Your task to perform on an android device: add a label to a message in the gmail app Image 0: 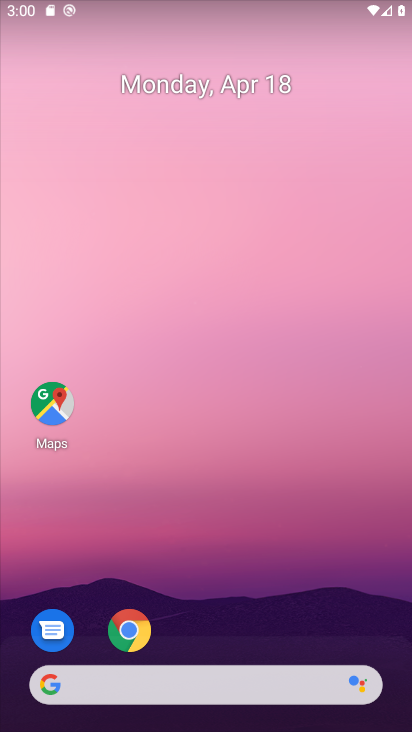
Step 0: drag from (354, 626) to (238, 176)
Your task to perform on an android device: add a label to a message in the gmail app Image 1: 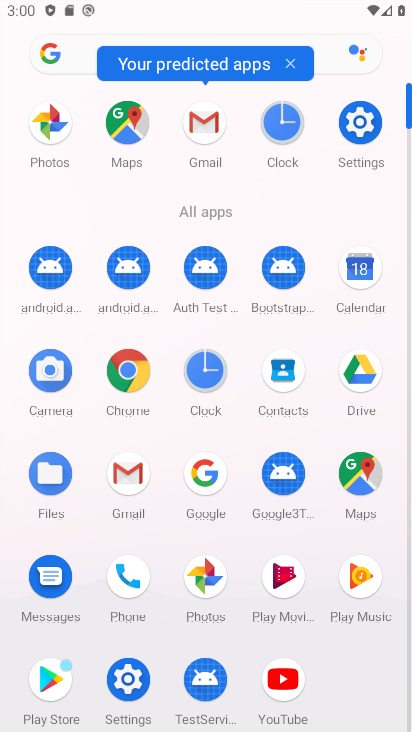
Step 1: click (196, 126)
Your task to perform on an android device: add a label to a message in the gmail app Image 2: 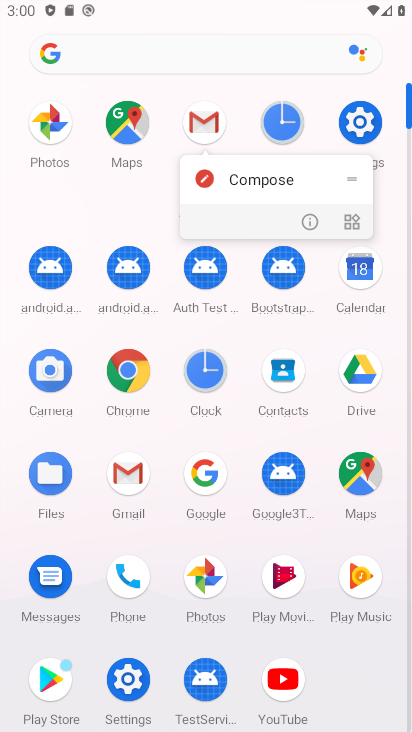
Step 2: click (201, 122)
Your task to perform on an android device: add a label to a message in the gmail app Image 3: 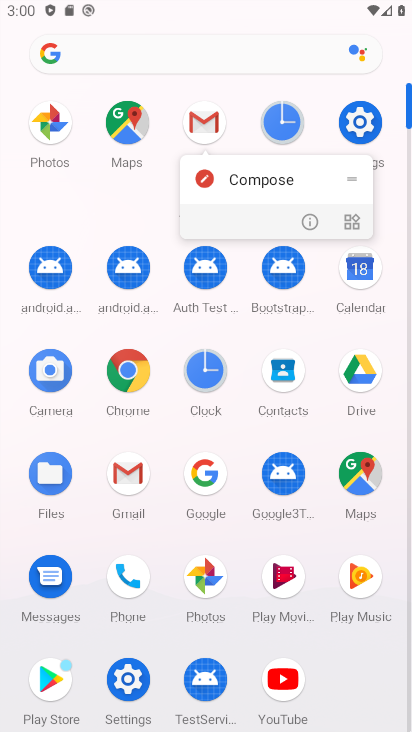
Step 3: click (201, 122)
Your task to perform on an android device: add a label to a message in the gmail app Image 4: 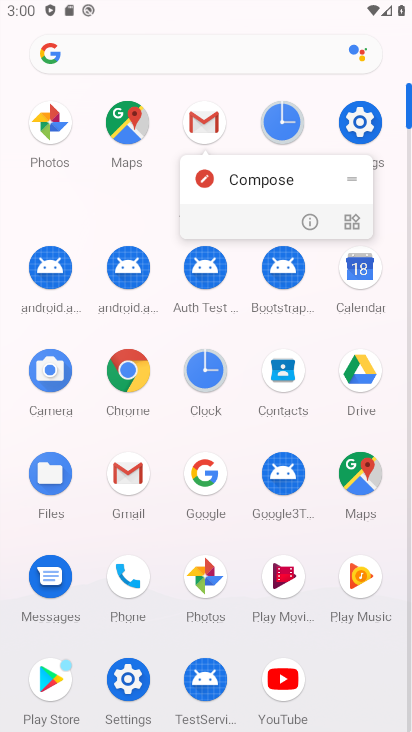
Step 4: click (201, 122)
Your task to perform on an android device: add a label to a message in the gmail app Image 5: 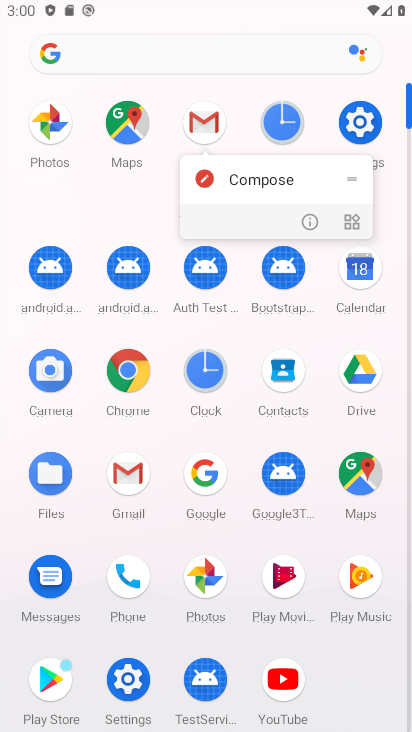
Step 5: click (201, 122)
Your task to perform on an android device: add a label to a message in the gmail app Image 6: 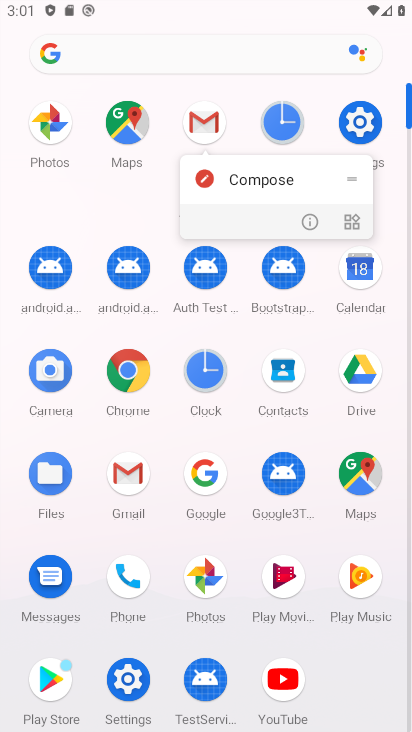
Step 6: click (214, 113)
Your task to perform on an android device: add a label to a message in the gmail app Image 7: 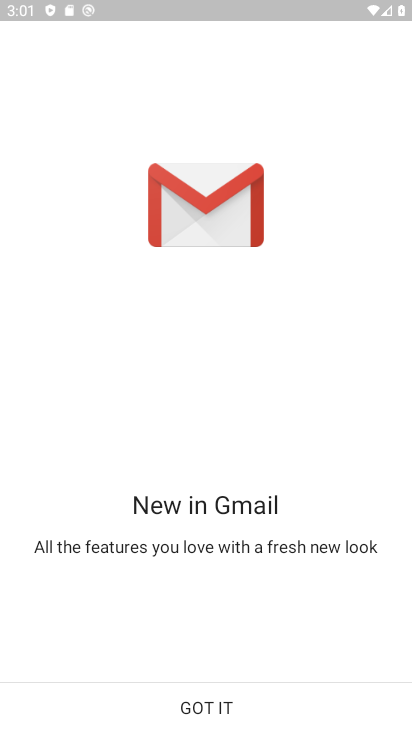
Step 7: click (242, 716)
Your task to perform on an android device: add a label to a message in the gmail app Image 8: 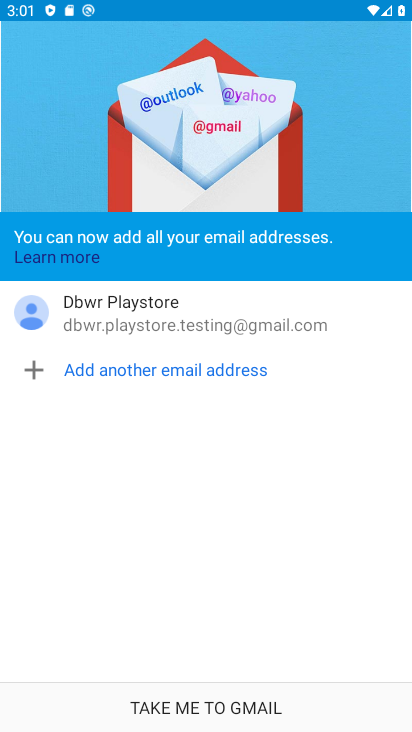
Step 8: click (243, 715)
Your task to perform on an android device: add a label to a message in the gmail app Image 9: 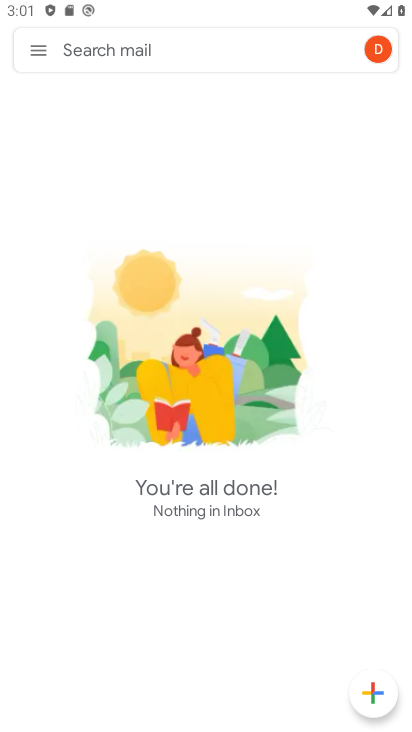
Step 9: click (37, 39)
Your task to perform on an android device: add a label to a message in the gmail app Image 10: 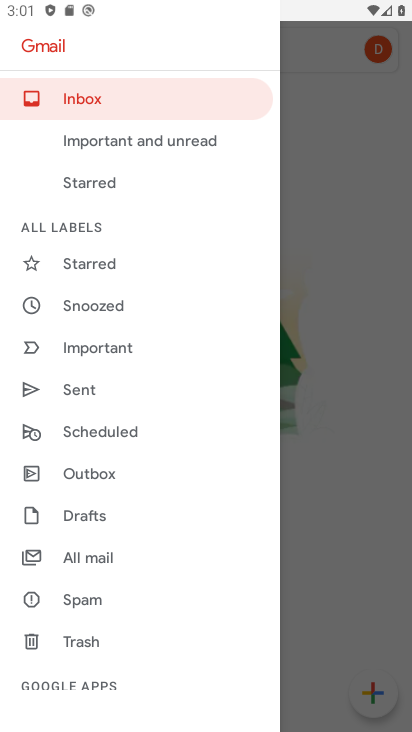
Step 10: click (82, 559)
Your task to perform on an android device: add a label to a message in the gmail app Image 11: 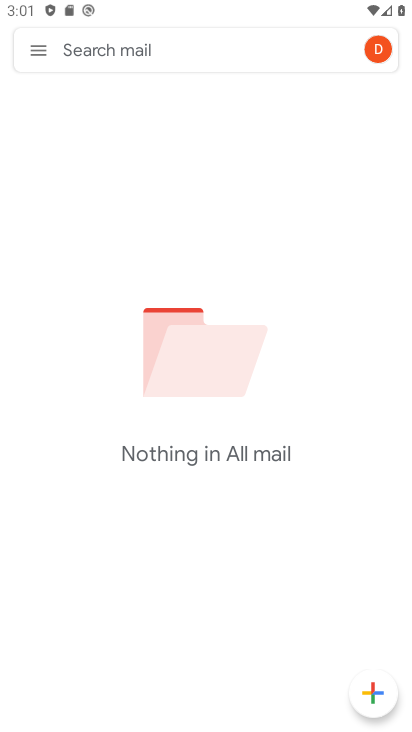
Step 11: task complete